Your task to perform on an android device: Open calendar and show me the second week of next month Image 0: 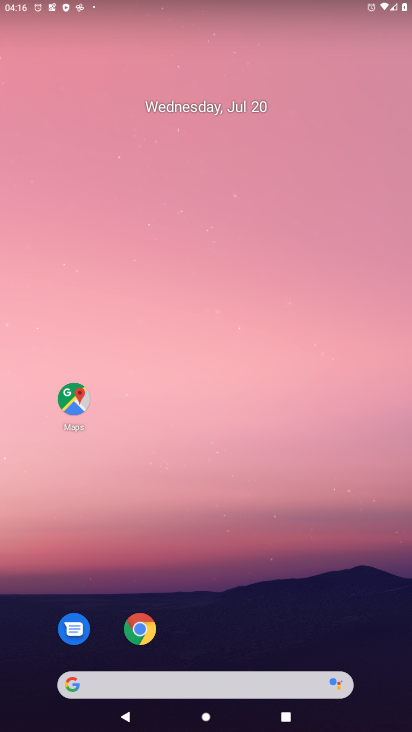
Step 0: drag from (380, 654) to (318, 89)
Your task to perform on an android device: Open calendar and show me the second week of next month Image 1: 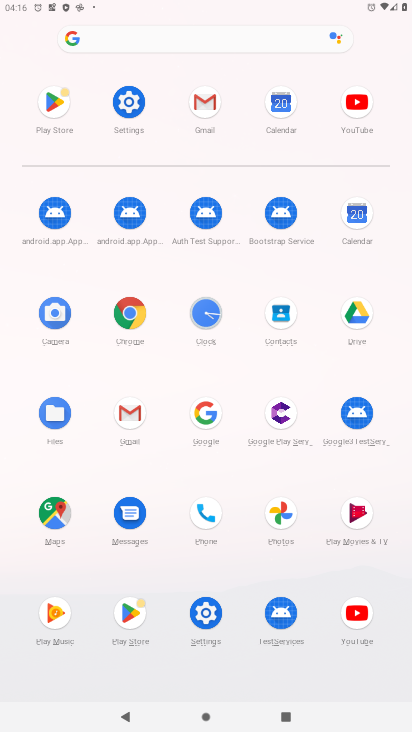
Step 1: click (358, 213)
Your task to perform on an android device: Open calendar and show me the second week of next month Image 2: 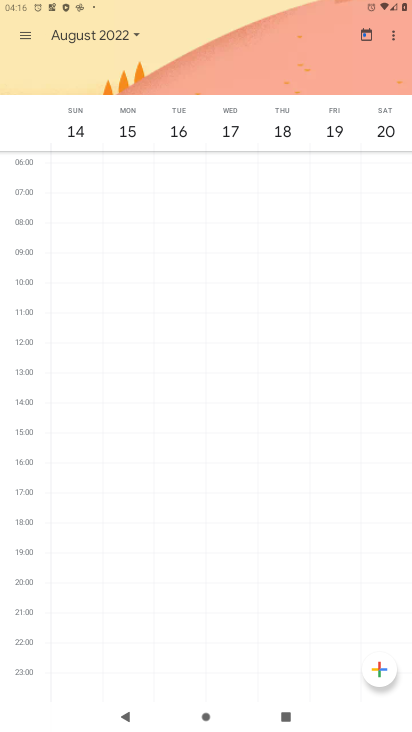
Step 2: task complete